Your task to perform on an android device: star an email in the gmail app Image 0: 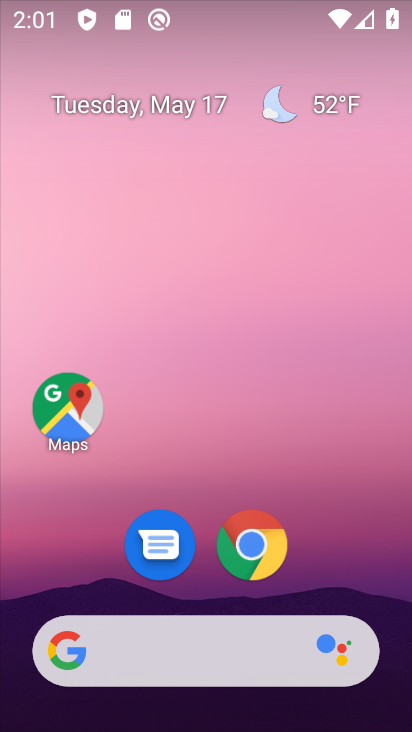
Step 0: drag from (370, 590) to (379, 208)
Your task to perform on an android device: star an email in the gmail app Image 1: 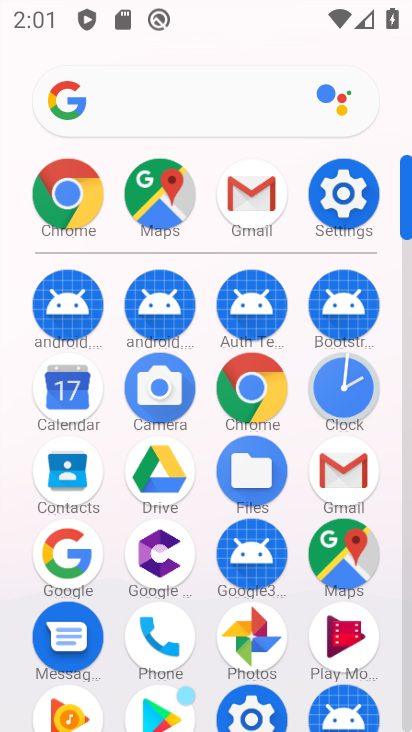
Step 1: click (359, 478)
Your task to perform on an android device: star an email in the gmail app Image 2: 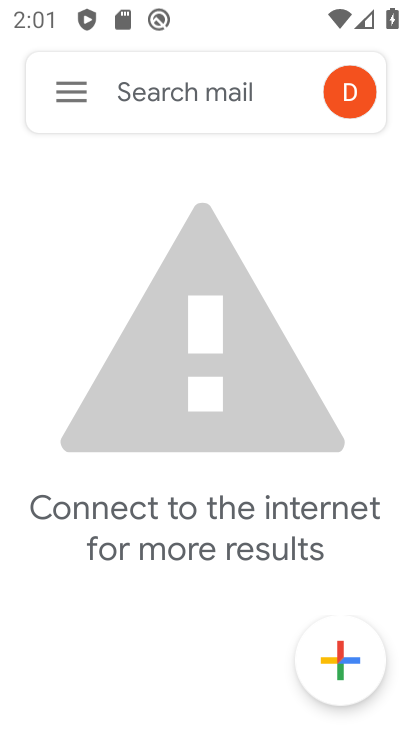
Step 2: click (78, 90)
Your task to perform on an android device: star an email in the gmail app Image 3: 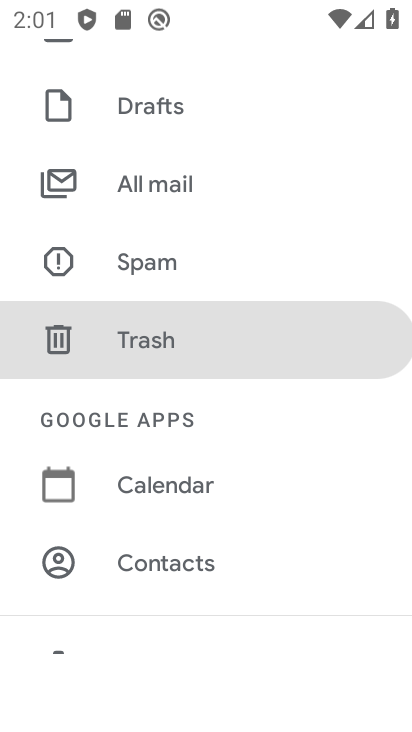
Step 3: drag from (295, 344) to (289, 492)
Your task to perform on an android device: star an email in the gmail app Image 4: 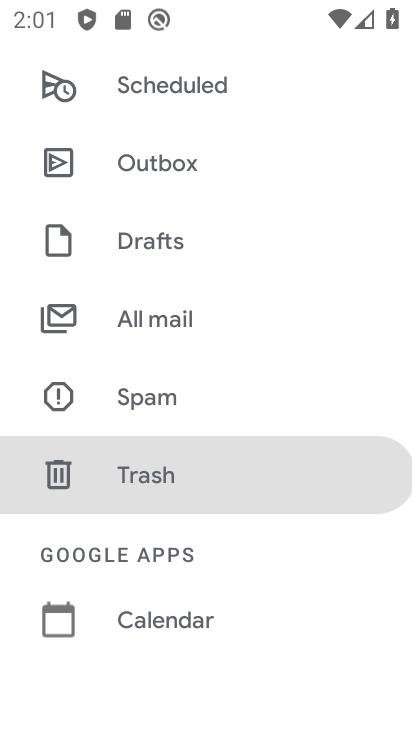
Step 4: drag from (261, 299) to (247, 439)
Your task to perform on an android device: star an email in the gmail app Image 5: 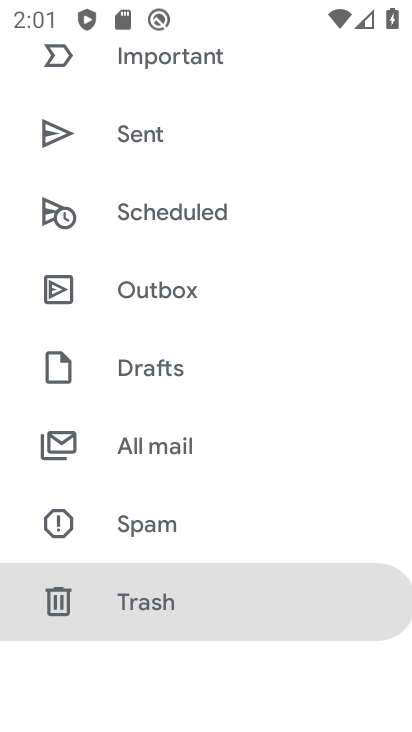
Step 5: drag from (266, 241) to (261, 345)
Your task to perform on an android device: star an email in the gmail app Image 6: 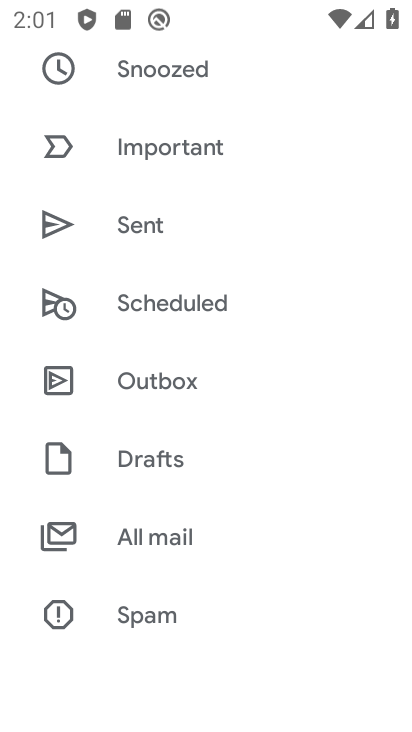
Step 6: drag from (278, 216) to (287, 307)
Your task to perform on an android device: star an email in the gmail app Image 7: 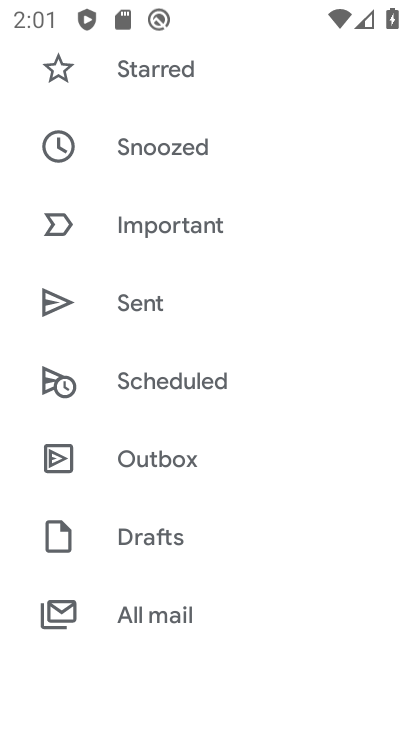
Step 7: drag from (290, 179) to (288, 285)
Your task to perform on an android device: star an email in the gmail app Image 8: 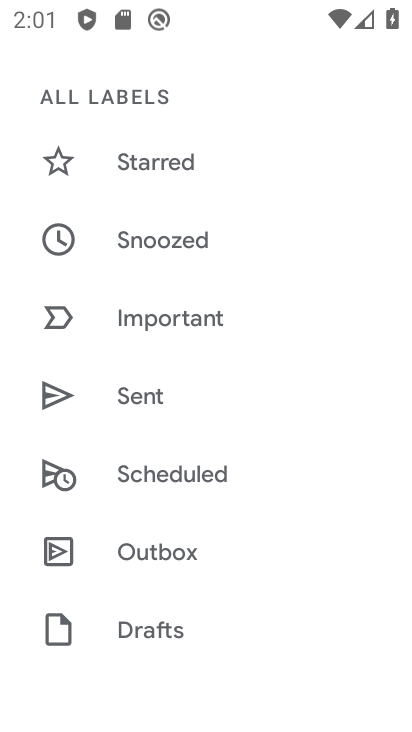
Step 8: drag from (286, 167) to (288, 295)
Your task to perform on an android device: star an email in the gmail app Image 9: 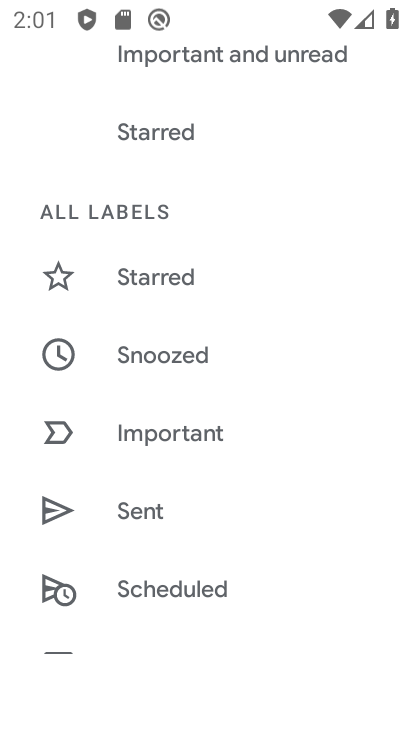
Step 9: drag from (286, 155) to (292, 288)
Your task to perform on an android device: star an email in the gmail app Image 10: 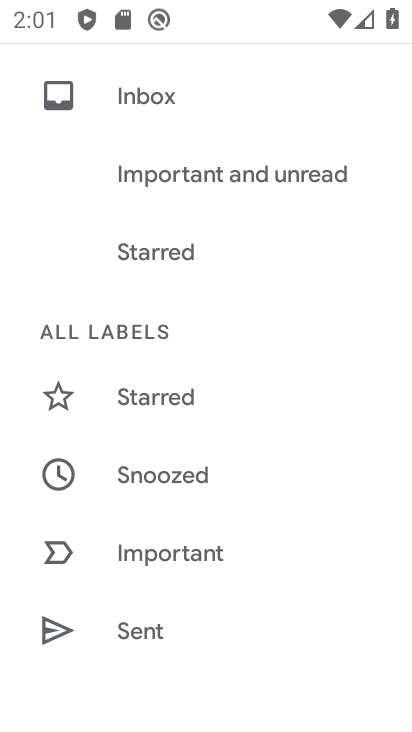
Step 10: drag from (299, 211) to (286, 321)
Your task to perform on an android device: star an email in the gmail app Image 11: 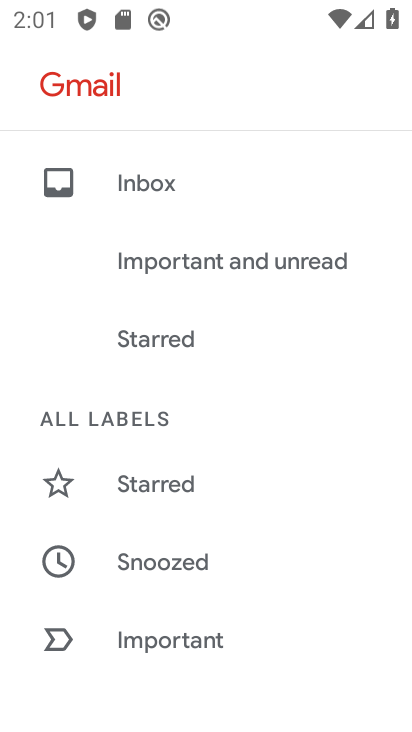
Step 11: click (172, 188)
Your task to perform on an android device: star an email in the gmail app Image 12: 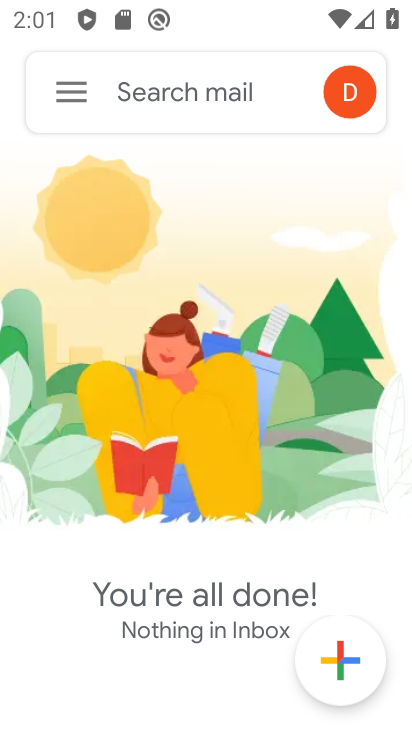
Step 12: task complete